Your task to perform on an android device: Search for vegetarian restaurants on Maps Image 0: 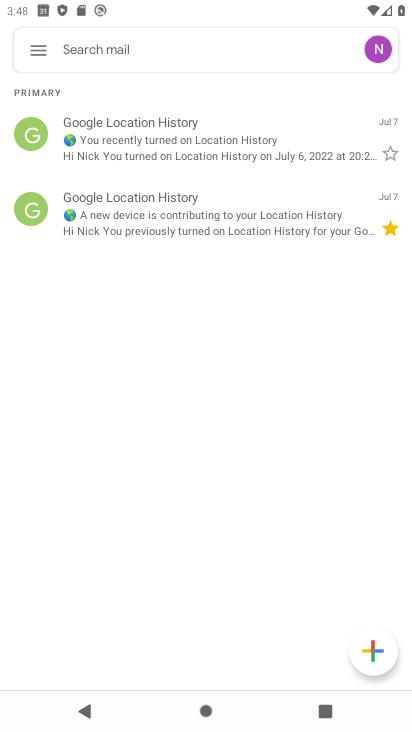
Step 0: press home button
Your task to perform on an android device: Search for vegetarian restaurants on Maps Image 1: 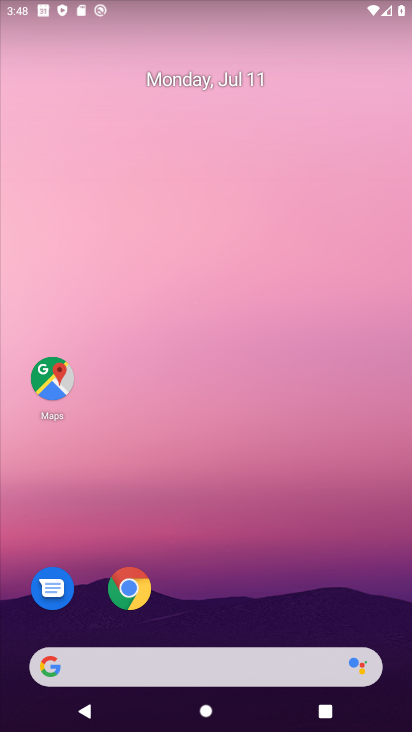
Step 1: drag from (203, 649) to (168, 36)
Your task to perform on an android device: Search for vegetarian restaurants on Maps Image 2: 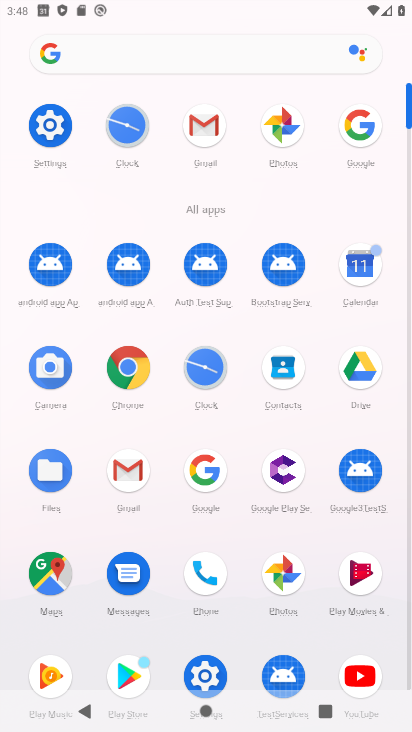
Step 2: click (50, 574)
Your task to perform on an android device: Search for vegetarian restaurants on Maps Image 3: 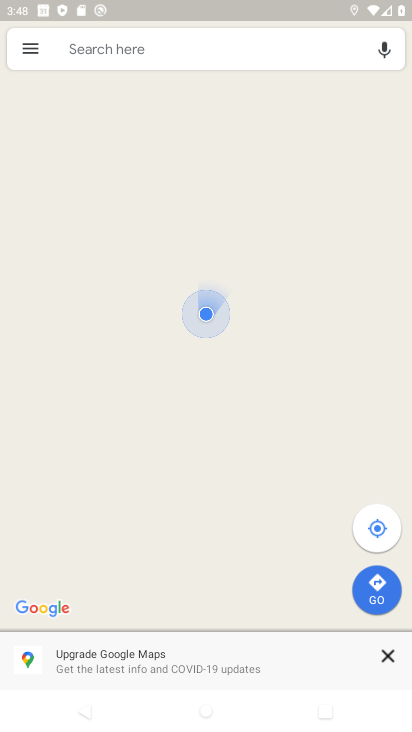
Step 3: click (121, 40)
Your task to perform on an android device: Search for vegetarian restaurants on Maps Image 4: 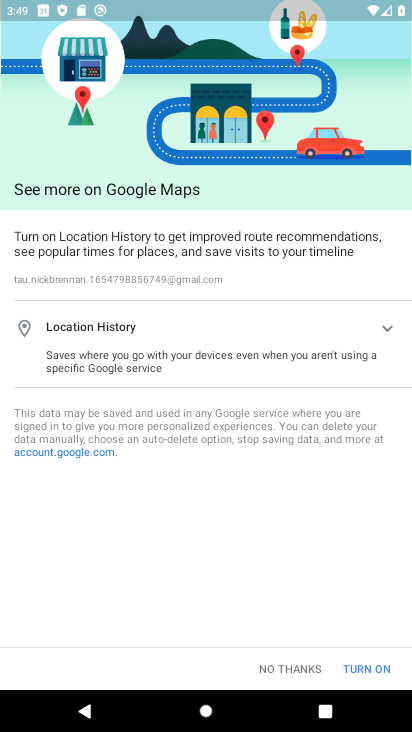
Step 4: click (379, 672)
Your task to perform on an android device: Search for vegetarian restaurants on Maps Image 5: 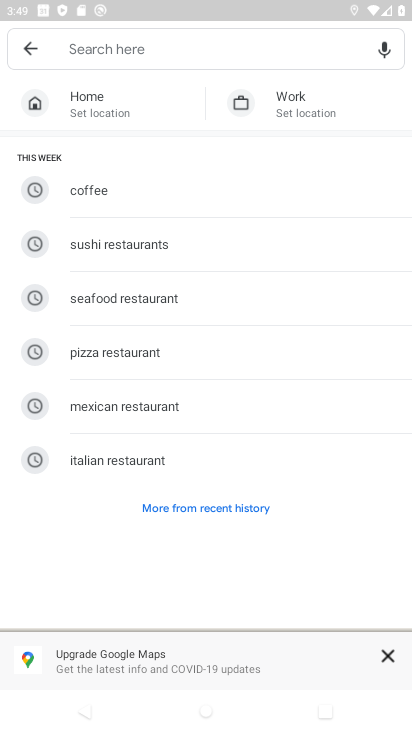
Step 5: click (157, 65)
Your task to perform on an android device: Search for vegetarian restaurants on Maps Image 6: 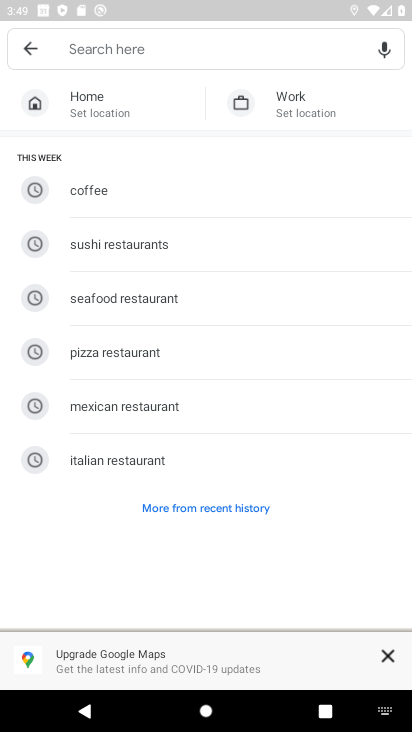
Step 6: type "vegetarian restaurants"
Your task to perform on an android device: Search for vegetarian restaurants on Maps Image 7: 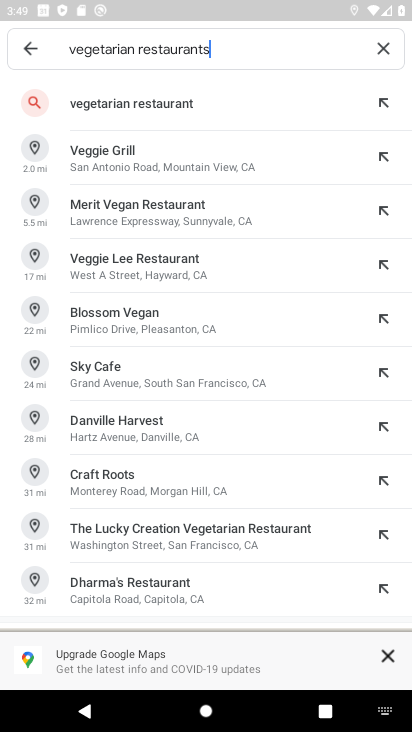
Step 7: click (105, 95)
Your task to perform on an android device: Search for vegetarian restaurants on Maps Image 8: 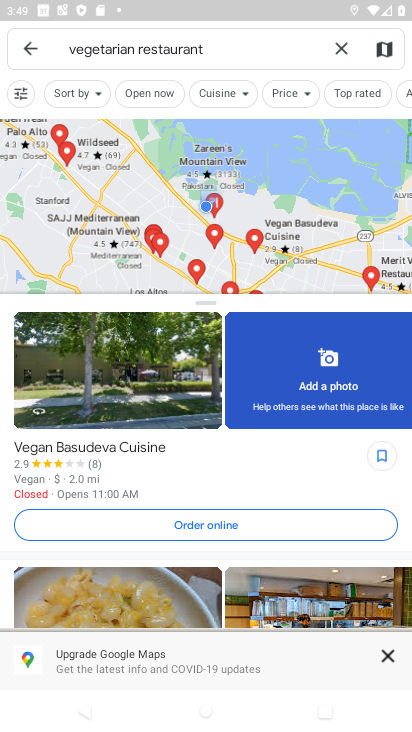
Step 8: task complete